Your task to perform on an android device: Check the weather Image 0: 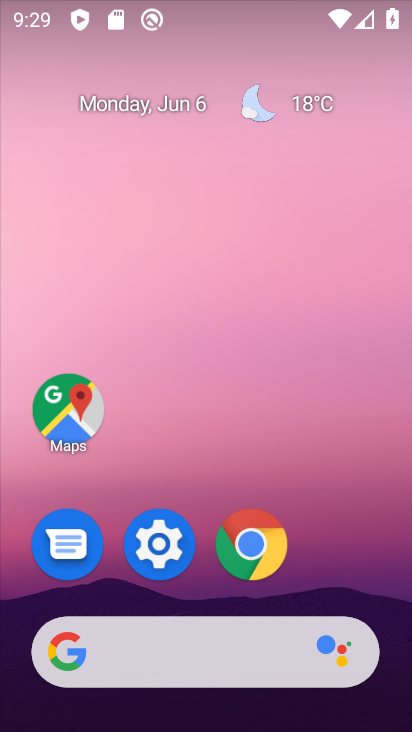
Step 0: drag from (7, 202) to (404, 399)
Your task to perform on an android device: Check the weather Image 1: 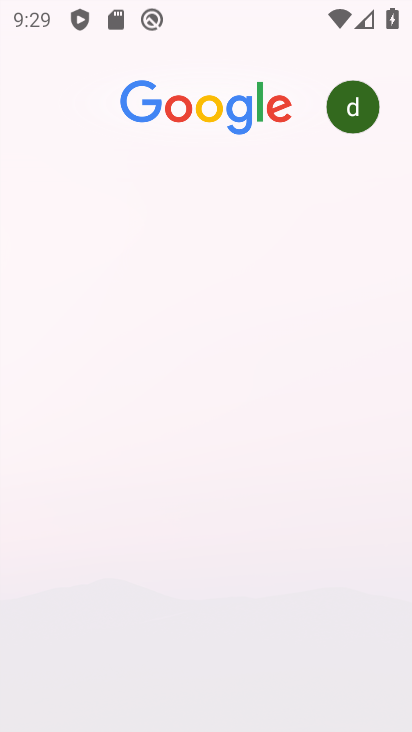
Step 1: task complete